Your task to perform on an android device: open app "Chime – Mobile Banking" (install if not already installed), go to login, and select forgot password Image 0: 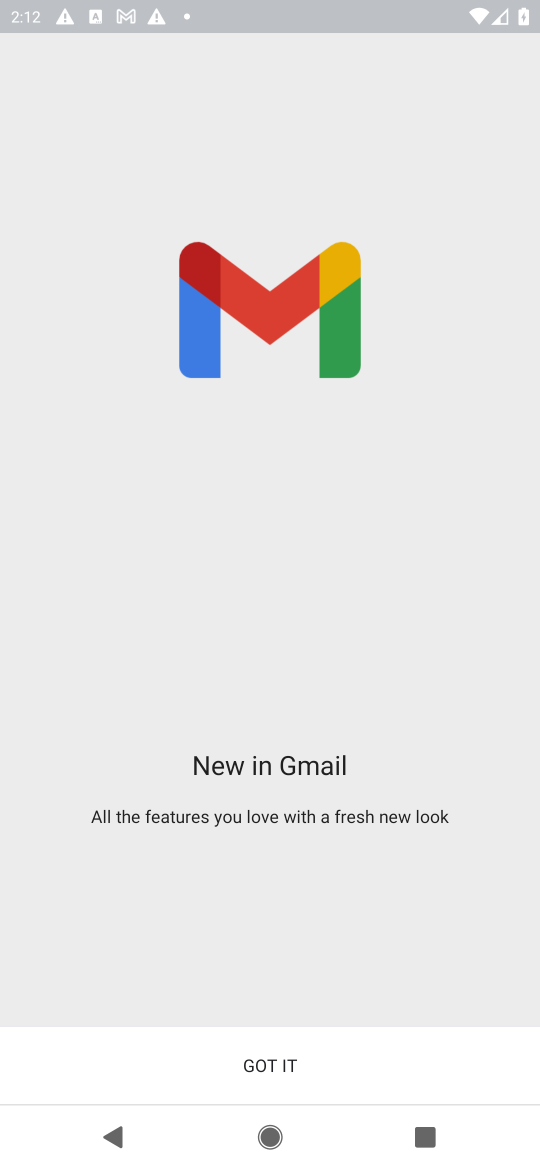
Step 0: press home button
Your task to perform on an android device: open app "Chime – Mobile Banking" (install if not already installed), go to login, and select forgot password Image 1: 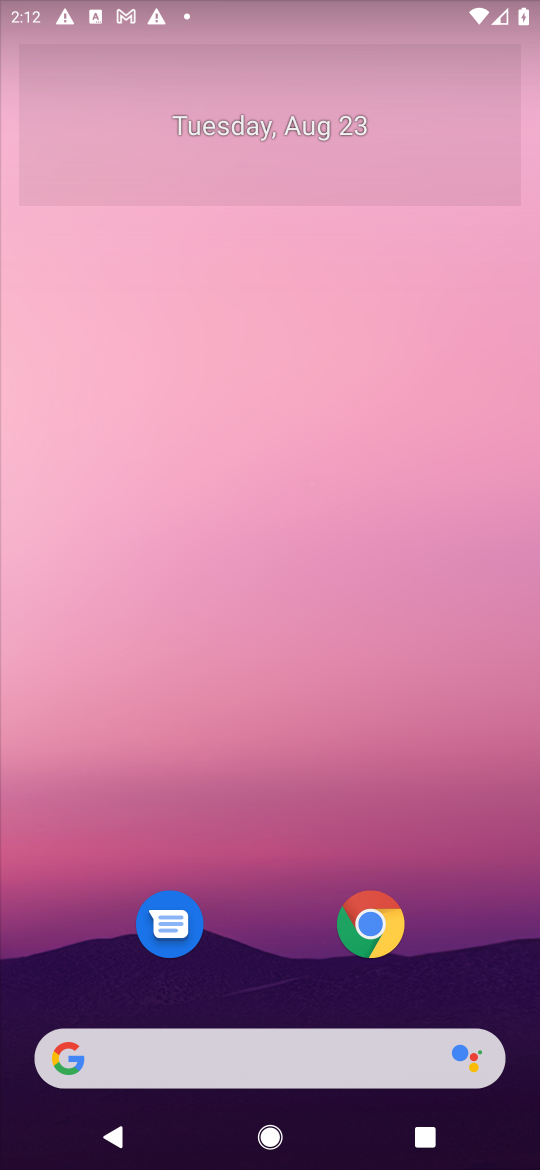
Step 1: drag from (473, 975) to (455, 113)
Your task to perform on an android device: open app "Chime – Mobile Banking" (install if not already installed), go to login, and select forgot password Image 2: 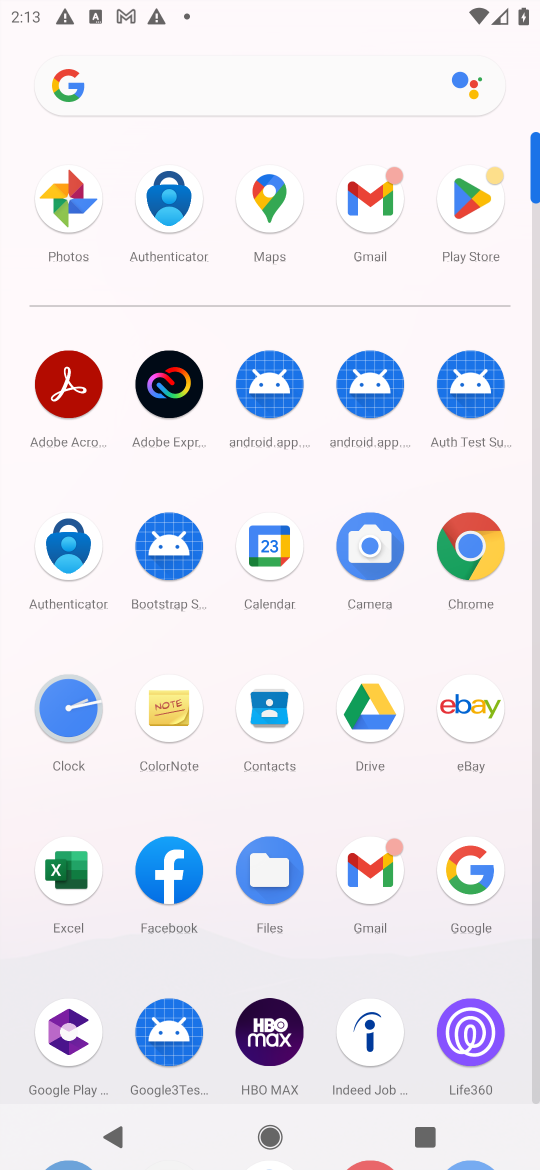
Step 2: click (475, 199)
Your task to perform on an android device: open app "Chime – Mobile Banking" (install if not already installed), go to login, and select forgot password Image 3: 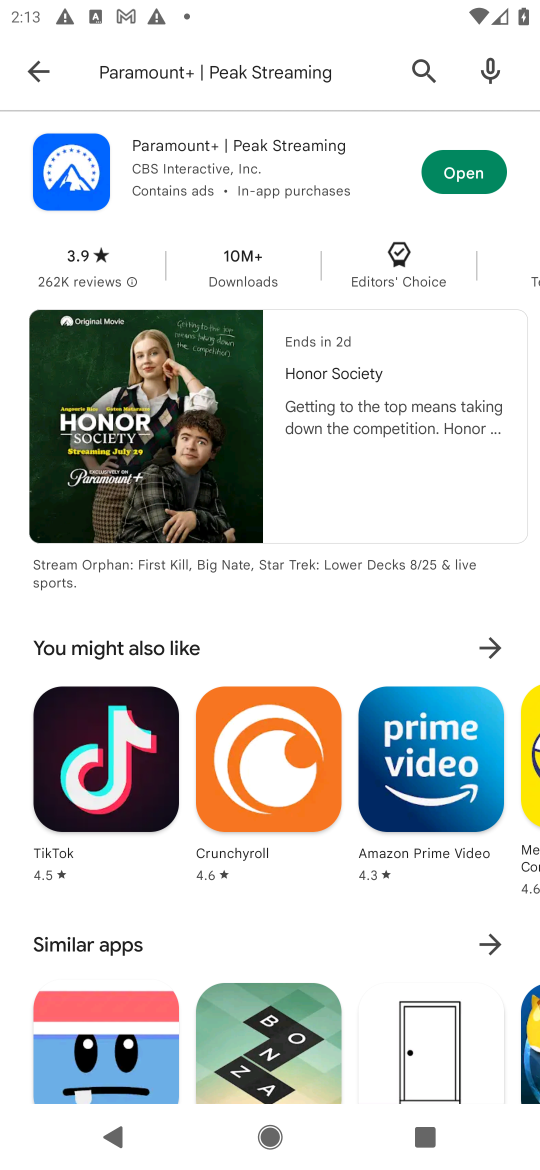
Step 3: press back button
Your task to perform on an android device: open app "Chime – Mobile Banking" (install if not already installed), go to login, and select forgot password Image 4: 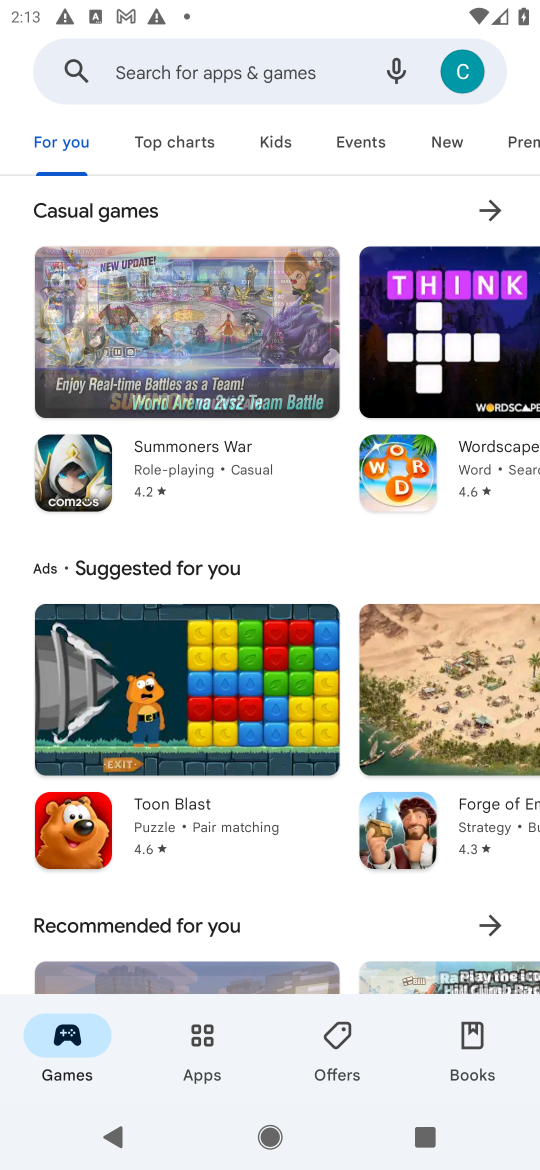
Step 4: click (278, 77)
Your task to perform on an android device: open app "Chime – Mobile Banking" (install if not already installed), go to login, and select forgot password Image 5: 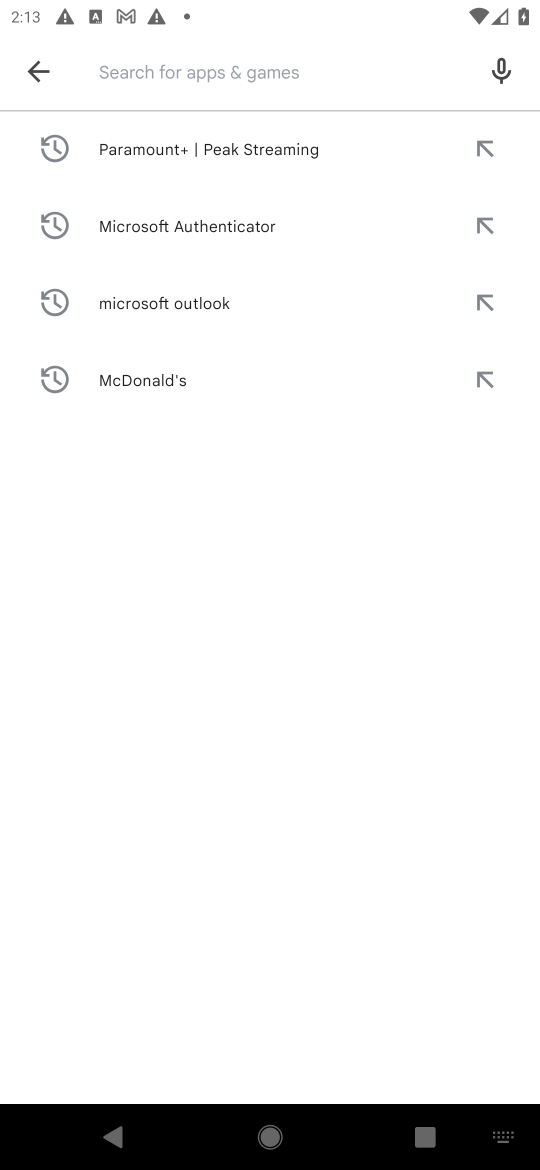
Step 5: type "Chime – Mobile Banking"
Your task to perform on an android device: open app "Chime – Mobile Banking" (install if not already installed), go to login, and select forgot password Image 6: 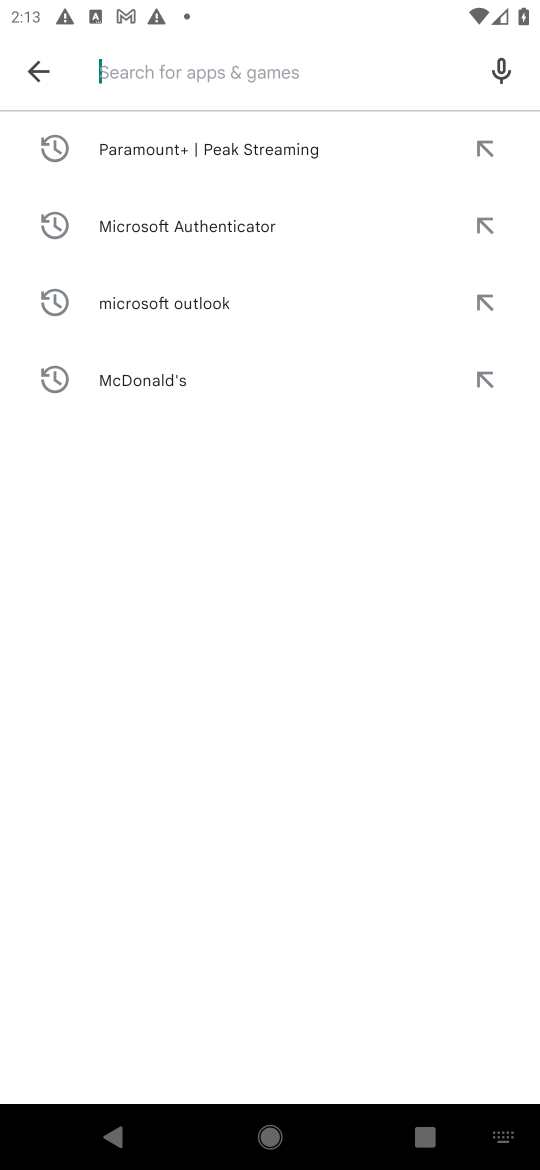
Step 6: press enter
Your task to perform on an android device: open app "Chime – Mobile Banking" (install if not already installed), go to login, and select forgot password Image 7: 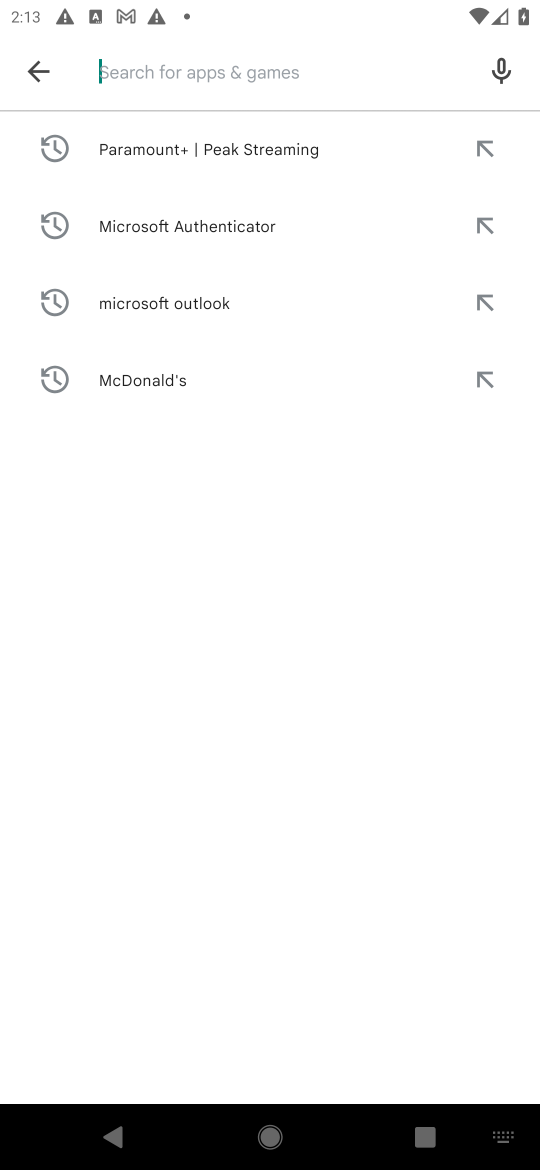
Step 7: task complete